Your task to perform on an android device: toggle show notifications on the lock screen Image 0: 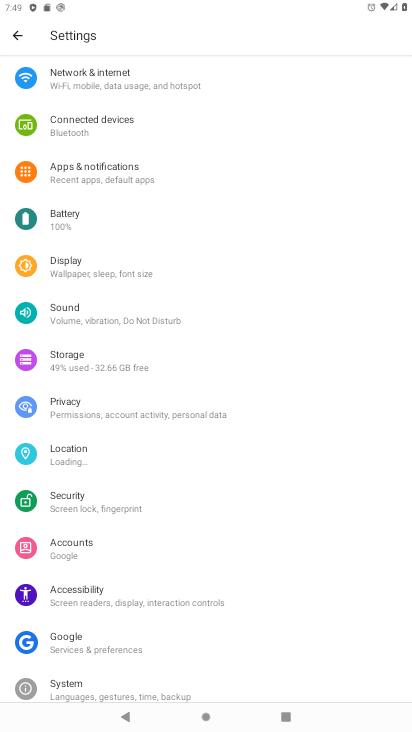
Step 0: press home button
Your task to perform on an android device: toggle show notifications on the lock screen Image 1: 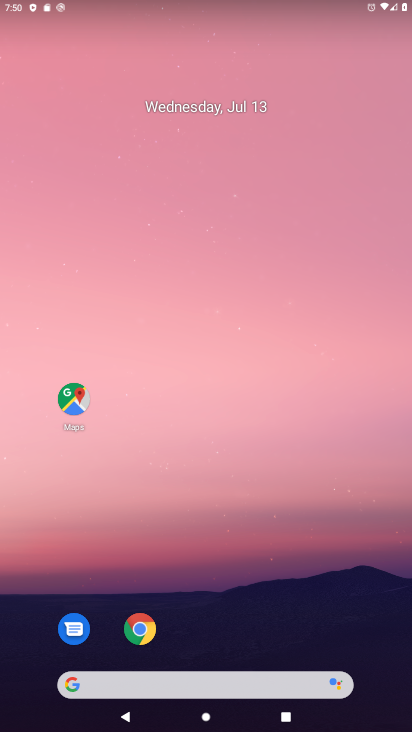
Step 1: drag from (37, 711) to (255, 12)
Your task to perform on an android device: toggle show notifications on the lock screen Image 2: 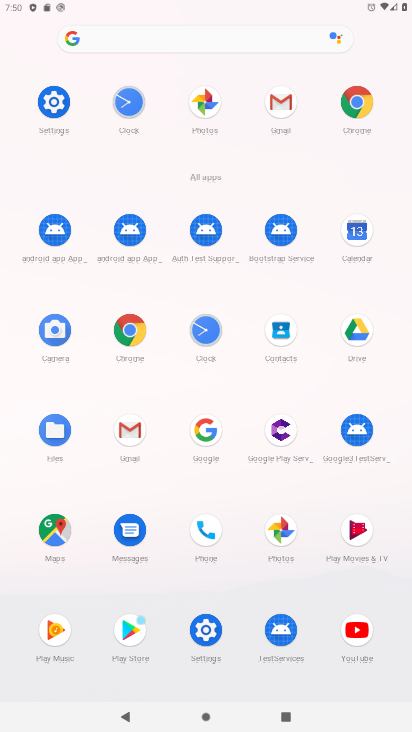
Step 2: click (219, 639)
Your task to perform on an android device: toggle show notifications on the lock screen Image 3: 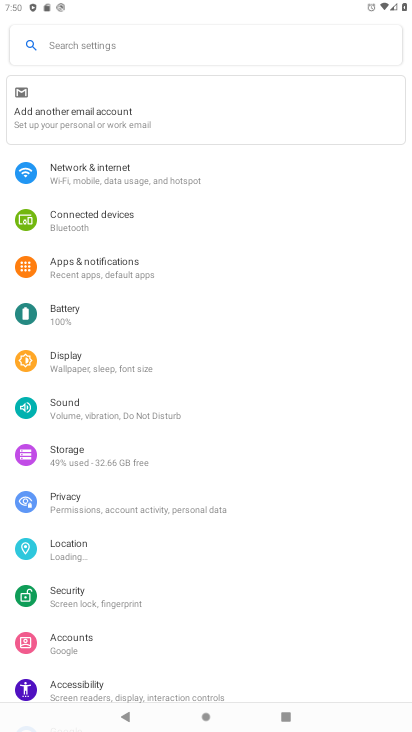
Step 3: click (77, 273)
Your task to perform on an android device: toggle show notifications on the lock screen Image 4: 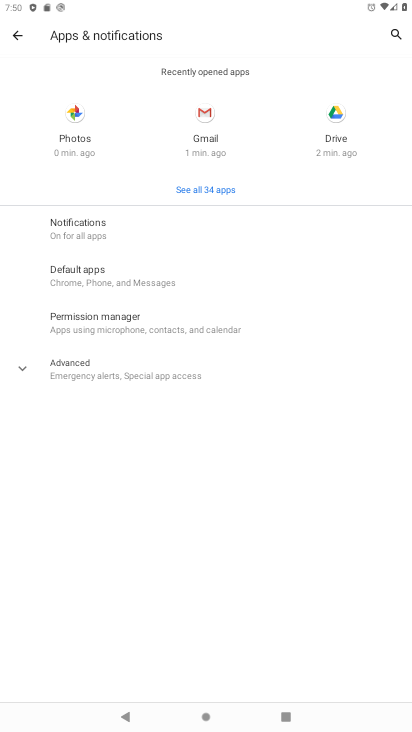
Step 4: click (103, 370)
Your task to perform on an android device: toggle show notifications on the lock screen Image 5: 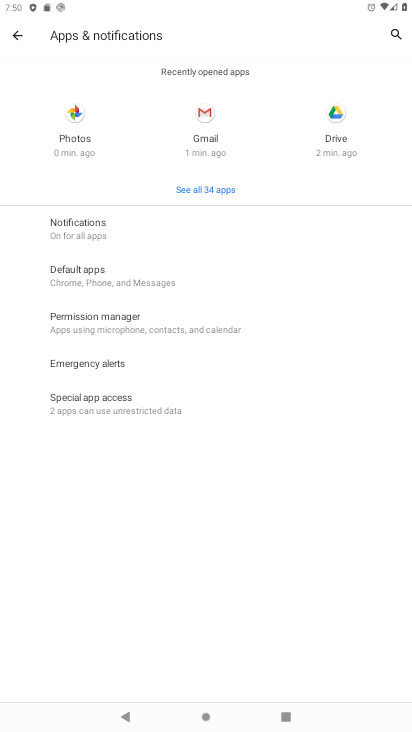
Step 5: click (82, 405)
Your task to perform on an android device: toggle show notifications on the lock screen Image 6: 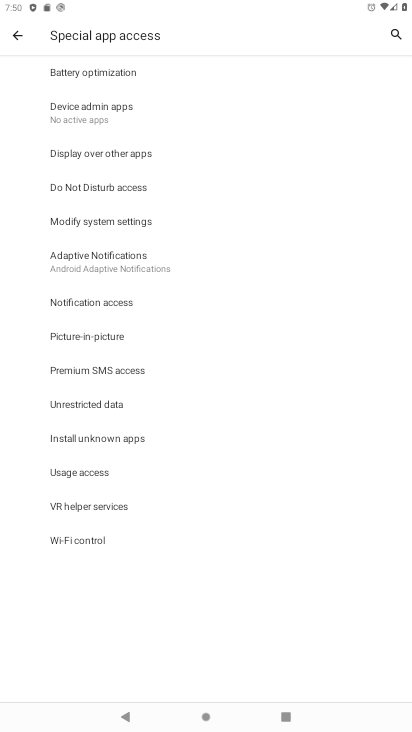
Step 6: click (13, 43)
Your task to perform on an android device: toggle show notifications on the lock screen Image 7: 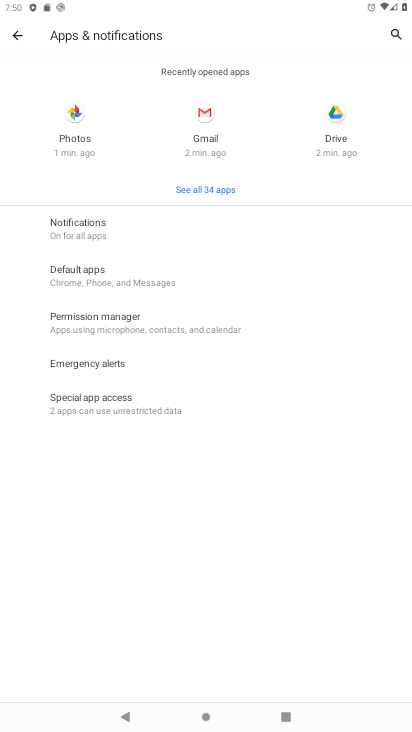
Step 7: task complete